Your task to perform on an android device: search for starred emails in the gmail app Image 0: 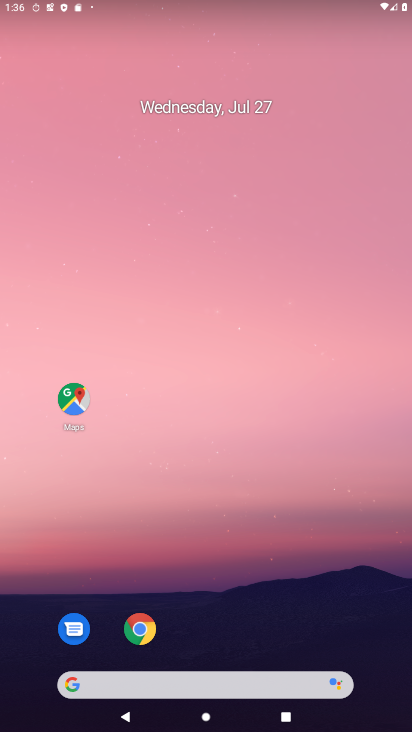
Step 0: drag from (335, 619) to (93, 54)
Your task to perform on an android device: search for starred emails in the gmail app Image 1: 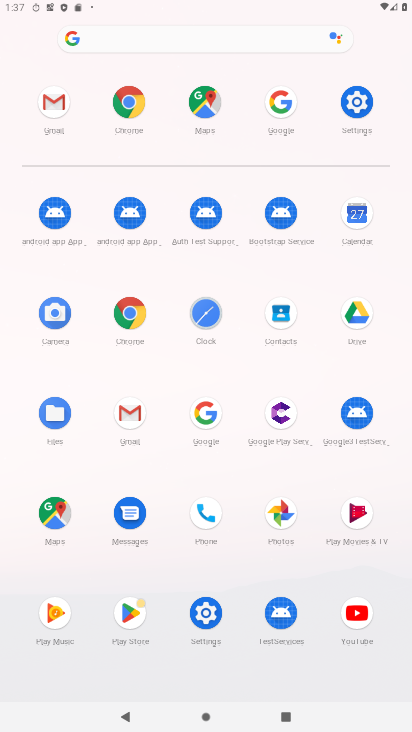
Step 1: click (136, 428)
Your task to perform on an android device: search for starred emails in the gmail app Image 2: 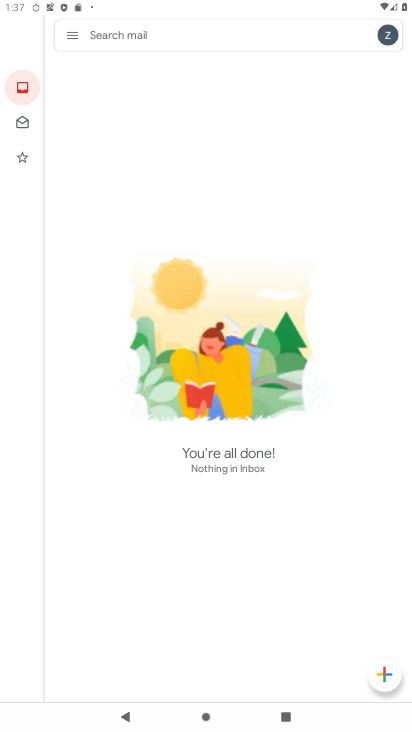
Step 2: click (61, 33)
Your task to perform on an android device: search for starred emails in the gmail app Image 3: 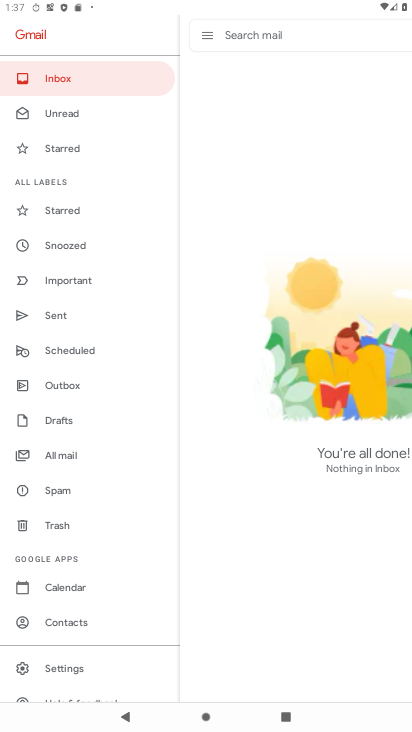
Step 3: click (66, 208)
Your task to perform on an android device: search for starred emails in the gmail app Image 4: 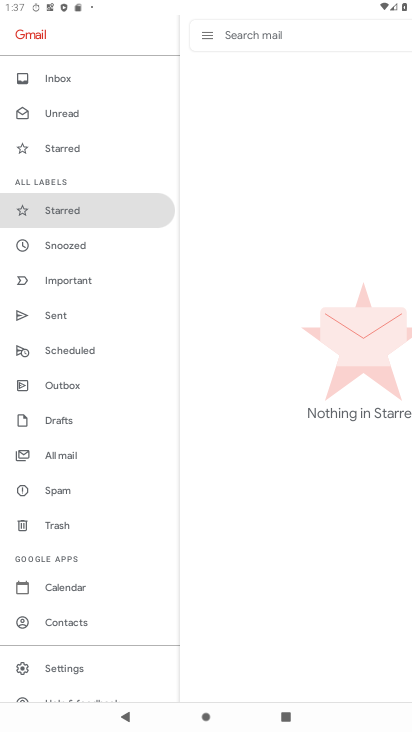
Step 4: task complete